Your task to perform on an android device: Go to Yahoo.com Image 0: 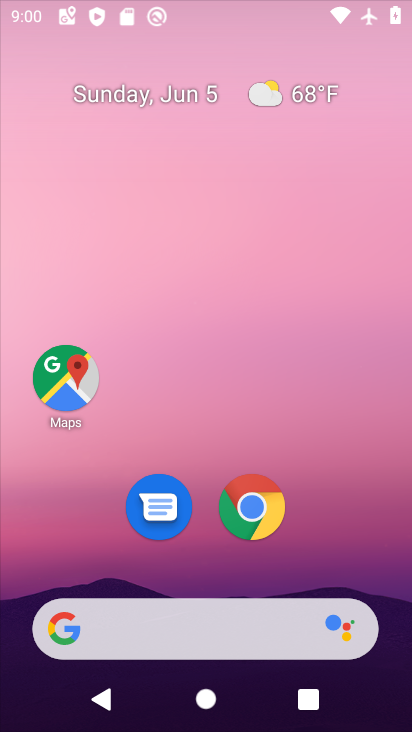
Step 0: drag from (186, 562) to (278, 27)
Your task to perform on an android device: Go to Yahoo.com Image 1: 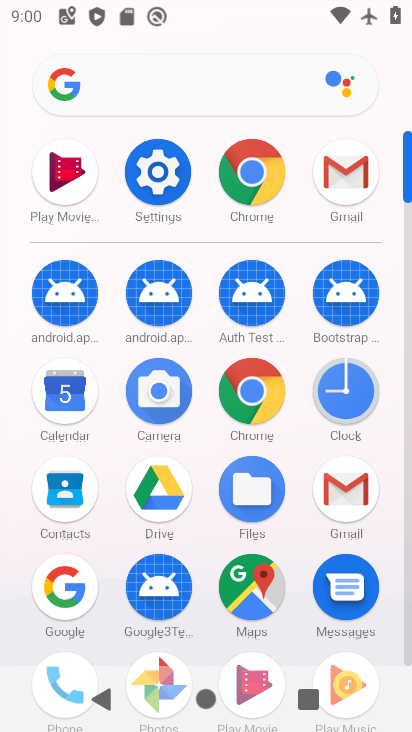
Step 1: click (261, 177)
Your task to perform on an android device: Go to Yahoo.com Image 2: 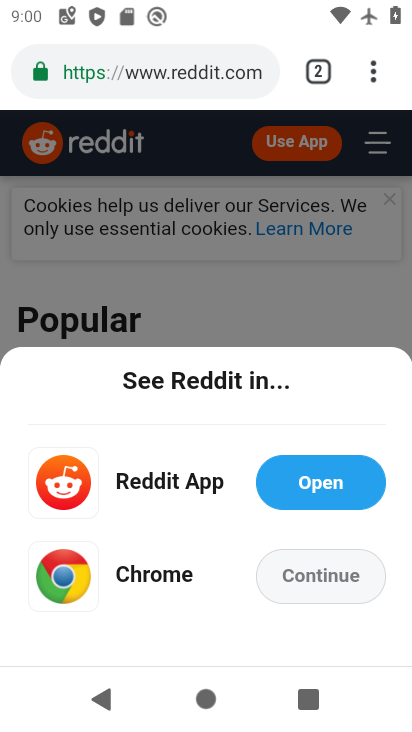
Step 2: click (189, 67)
Your task to perform on an android device: Go to Yahoo.com Image 3: 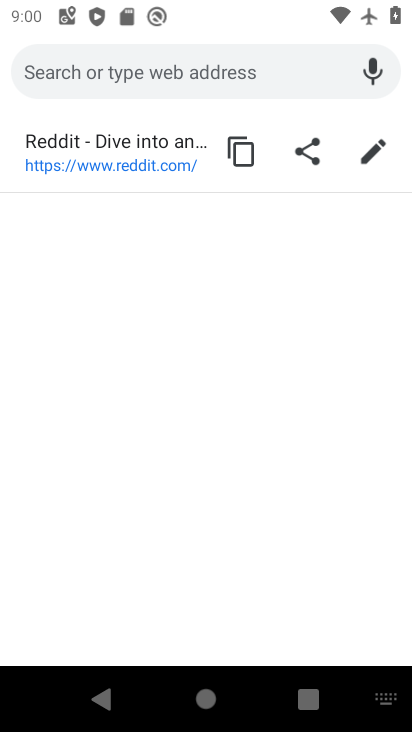
Step 3: type "Yahoo.com"
Your task to perform on an android device: Go to Yahoo.com Image 4: 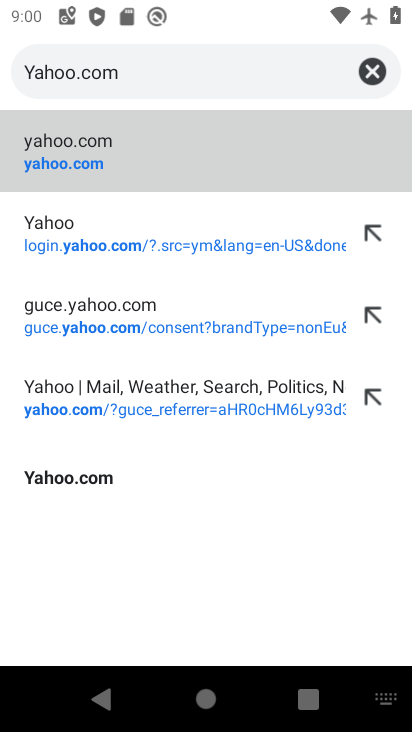
Step 4: click (148, 149)
Your task to perform on an android device: Go to Yahoo.com Image 5: 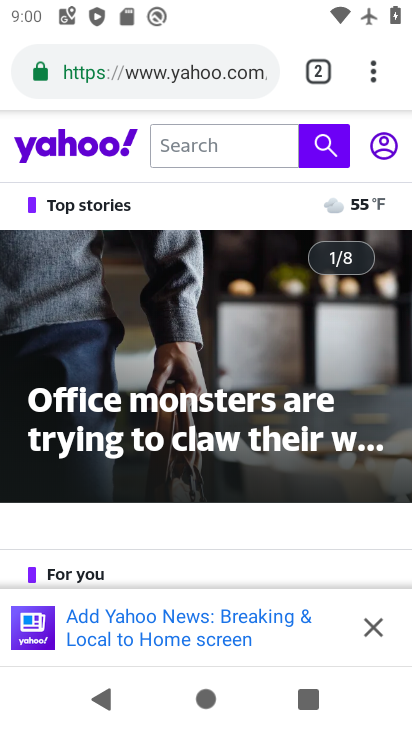
Step 5: task complete